Your task to perform on an android device: Open Maps and search for coffee Image 0: 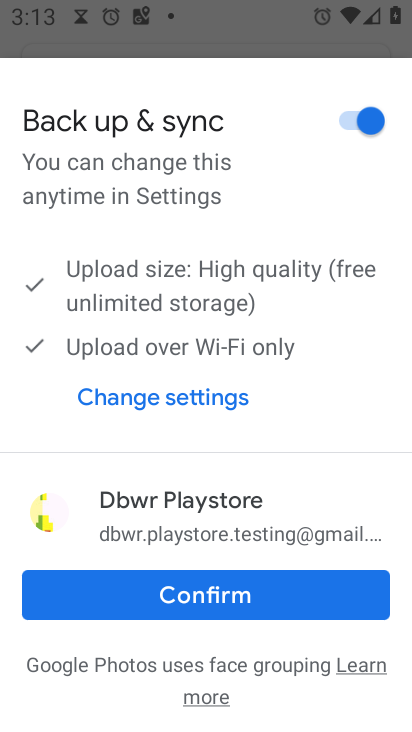
Step 0: press back button
Your task to perform on an android device: Open Maps and search for coffee Image 1: 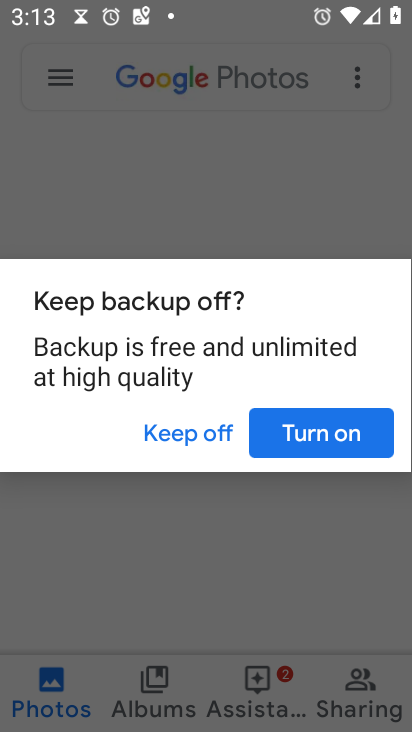
Step 1: press home button
Your task to perform on an android device: Open Maps and search for coffee Image 2: 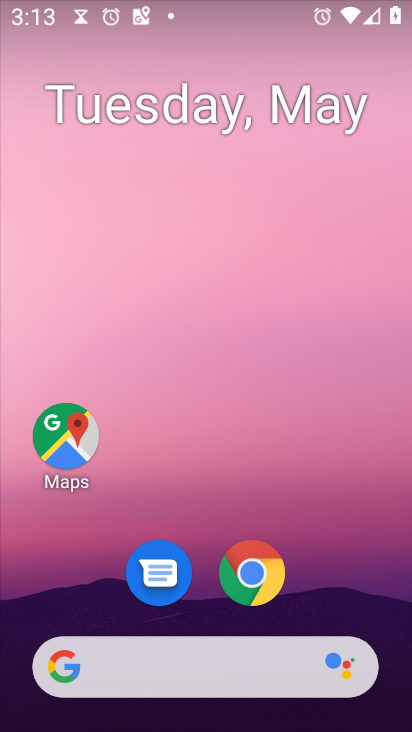
Step 2: click (64, 429)
Your task to perform on an android device: Open Maps and search for coffee Image 3: 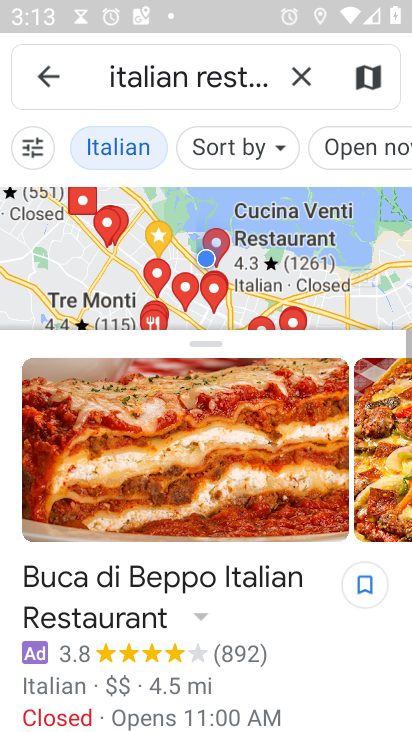
Step 3: click (305, 80)
Your task to perform on an android device: Open Maps and search for coffee Image 4: 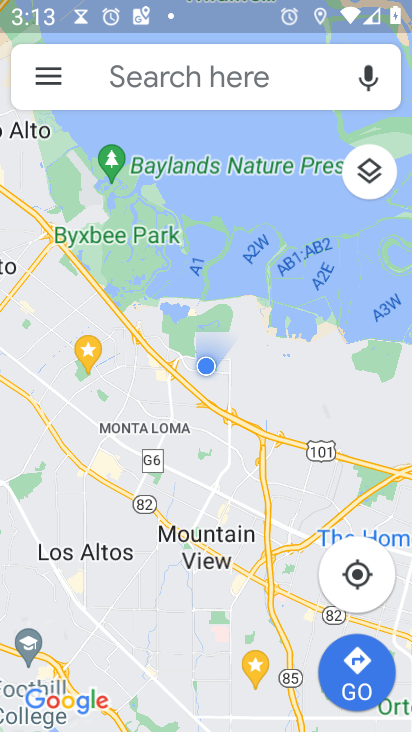
Step 4: click (299, 78)
Your task to perform on an android device: Open Maps and search for coffee Image 5: 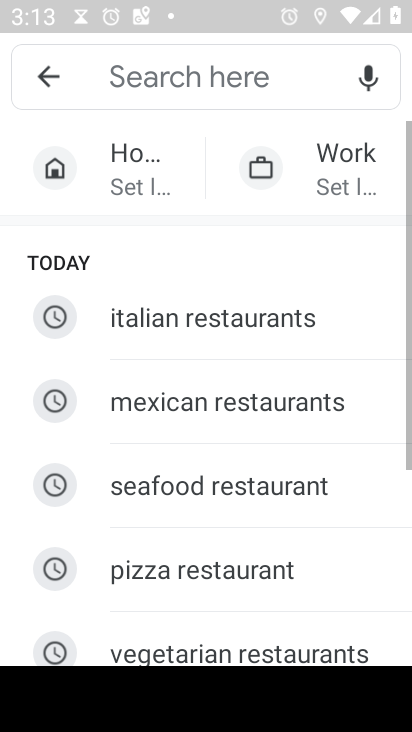
Step 5: drag from (204, 553) to (233, 242)
Your task to perform on an android device: Open Maps and search for coffee Image 6: 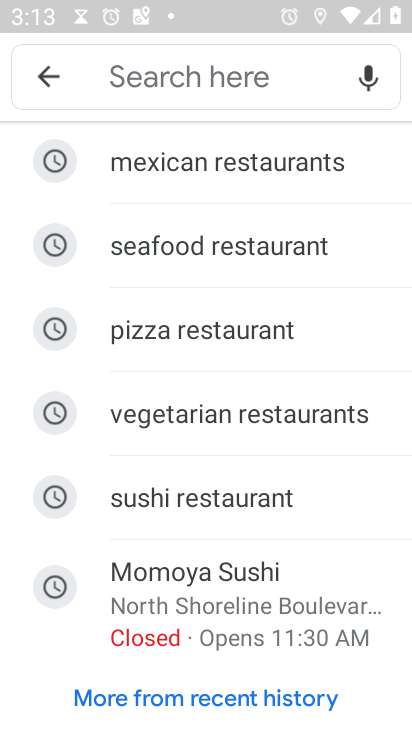
Step 6: click (119, 76)
Your task to perform on an android device: Open Maps and search for coffee Image 7: 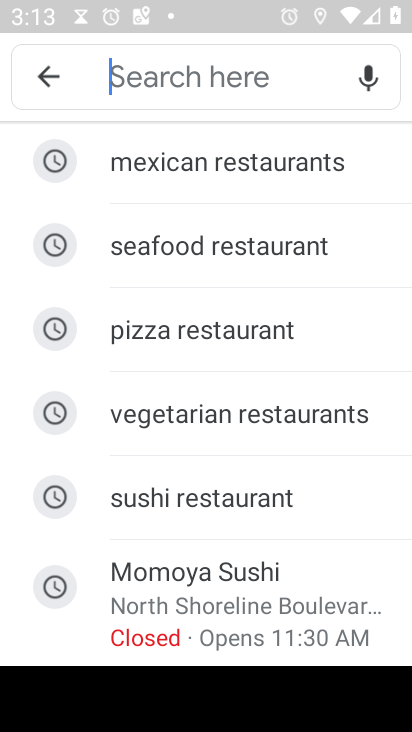
Step 7: type "coffee"
Your task to perform on an android device: Open Maps and search for coffee Image 8: 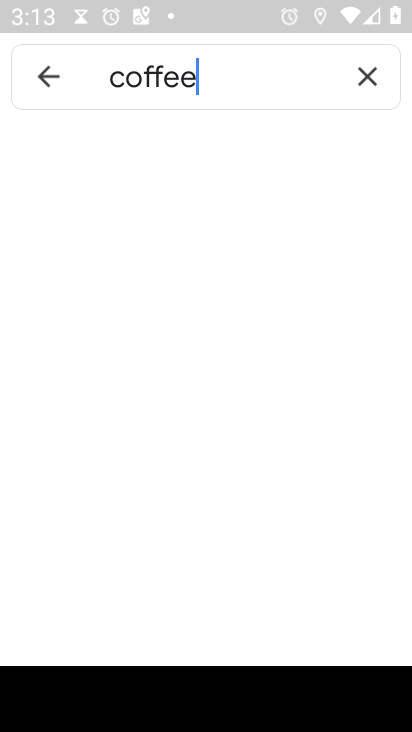
Step 8: type ""
Your task to perform on an android device: Open Maps and search for coffee Image 9: 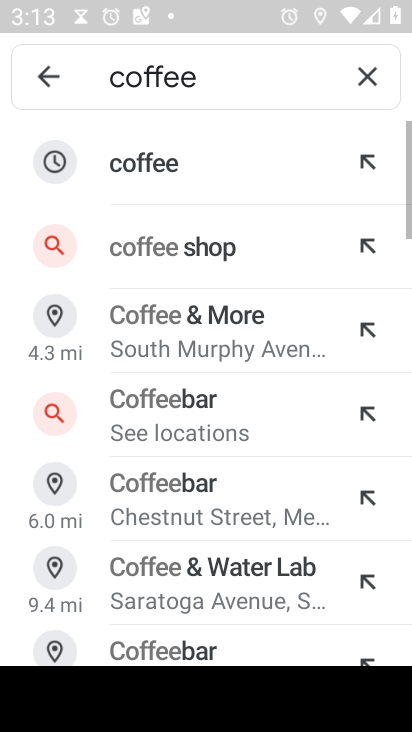
Step 9: click (158, 166)
Your task to perform on an android device: Open Maps and search for coffee Image 10: 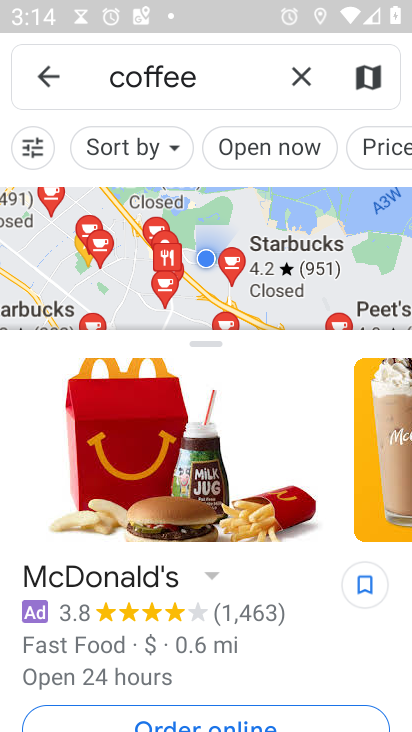
Step 10: task complete